Your task to perform on an android device: When is my next meeting? Image 0: 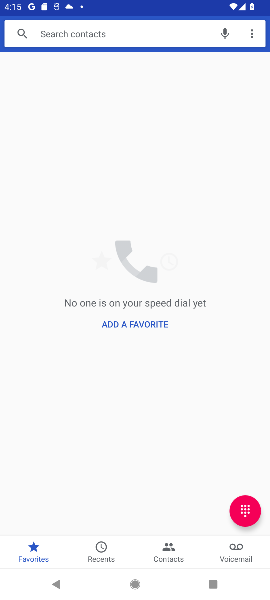
Step 0: press back button
Your task to perform on an android device: When is my next meeting? Image 1: 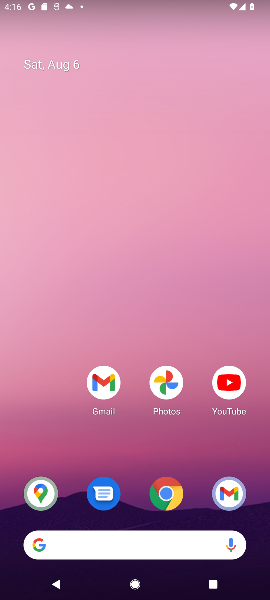
Step 1: drag from (185, 417) to (168, 224)
Your task to perform on an android device: When is my next meeting? Image 2: 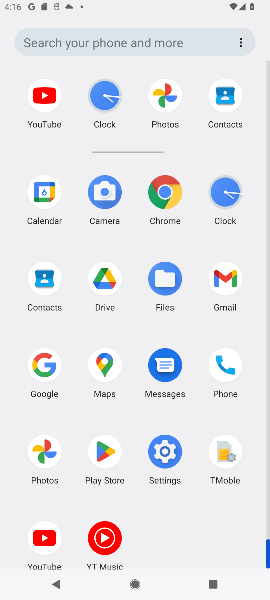
Step 2: drag from (190, 463) to (184, 139)
Your task to perform on an android device: When is my next meeting? Image 3: 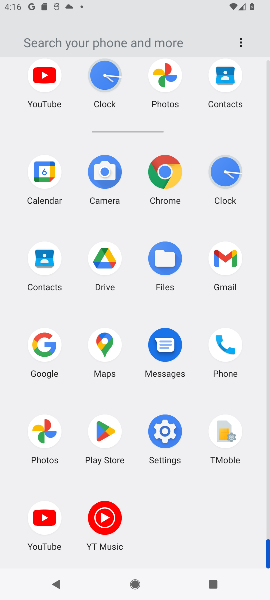
Step 3: click (41, 176)
Your task to perform on an android device: When is my next meeting? Image 4: 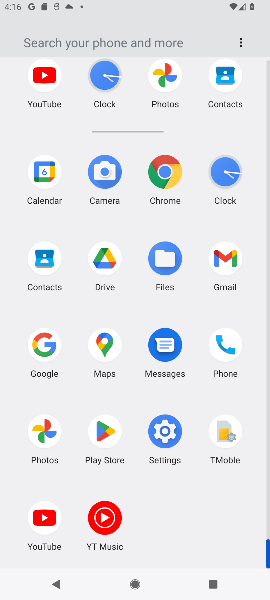
Step 4: click (41, 176)
Your task to perform on an android device: When is my next meeting? Image 5: 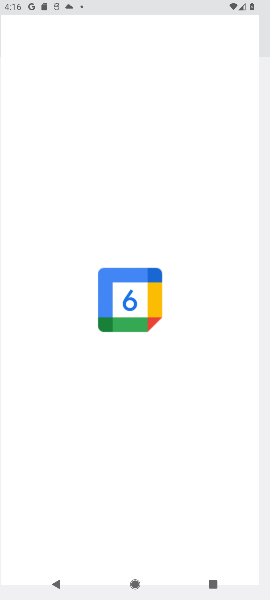
Step 5: click (41, 176)
Your task to perform on an android device: When is my next meeting? Image 6: 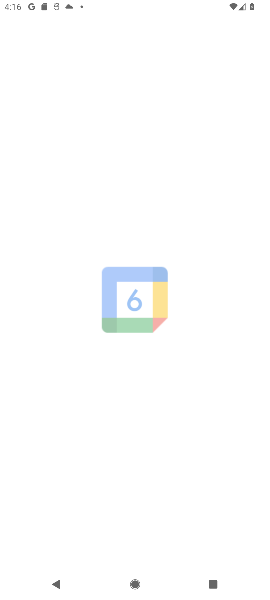
Step 6: click (45, 174)
Your task to perform on an android device: When is my next meeting? Image 7: 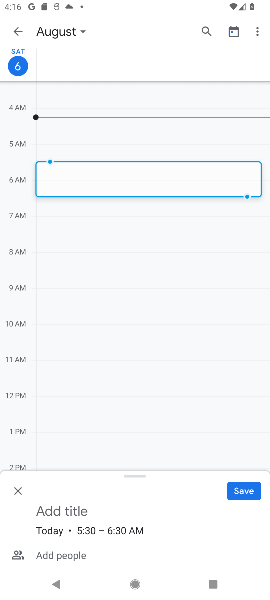
Step 7: click (82, 30)
Your task to perform on an android device: When is my next meeting? Image 8: 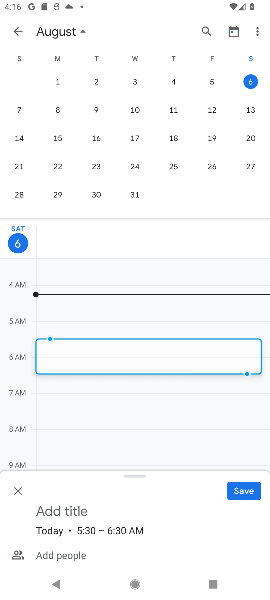
Step 8: click (245, 108)
Your task to perform on an android device: When is my next meeting? Image 9: 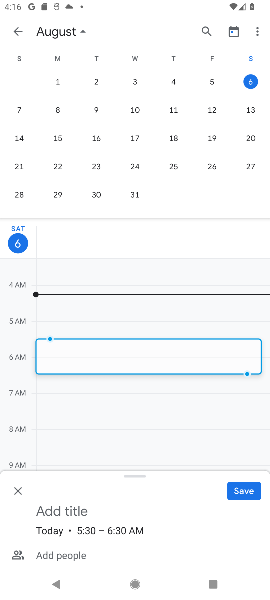
Step 9: click (245, 108)
Your task to perform on an android device: When is my next meeting? Image 10: 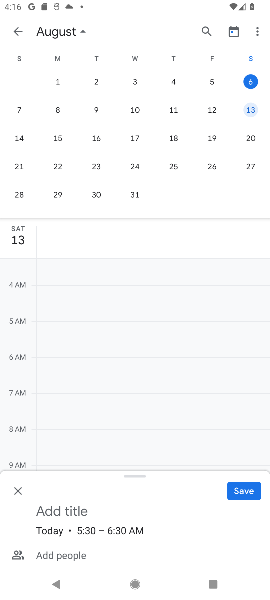
Step 10: task complete